Your task to perform on an android device: turn on translation in the chrome app Image 0: 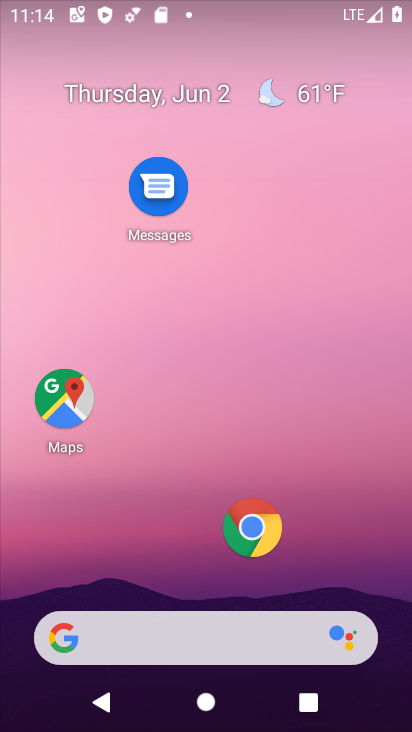
Step 0: drag from (217, 577) to (251, 52)
Your task to perform on an android device: turn on translation in the chrome app Image 1: 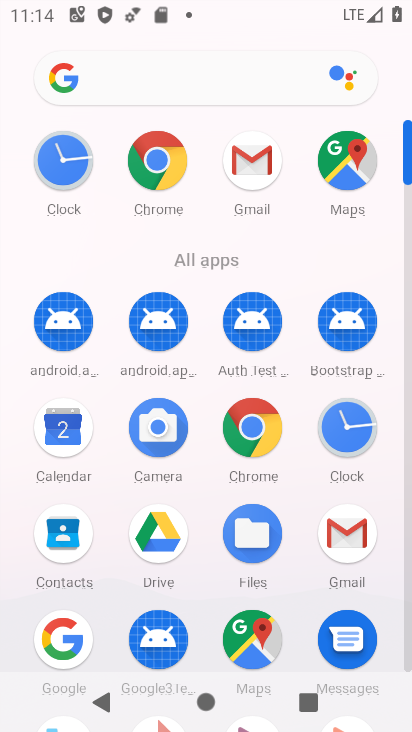
Step 1: click (246, 418)
Your task to perform on an android device: turn on translation in the chrome app Image 2: 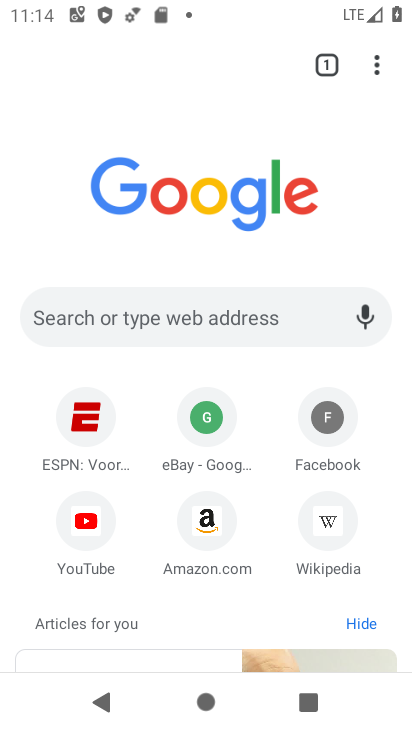
Step 2: click (374, 64)
Your task to perform on an android device: turn on translation in the chrome app Image 3: 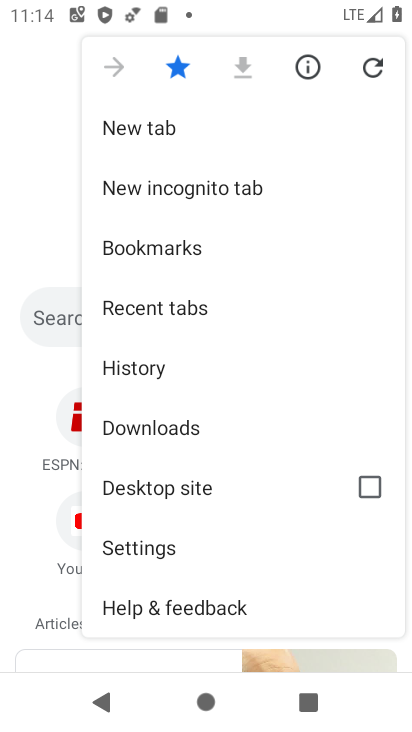
Step 3: click (180, 547)
Your task to perform on an android device: turn on translation in the chrome app Image 4: 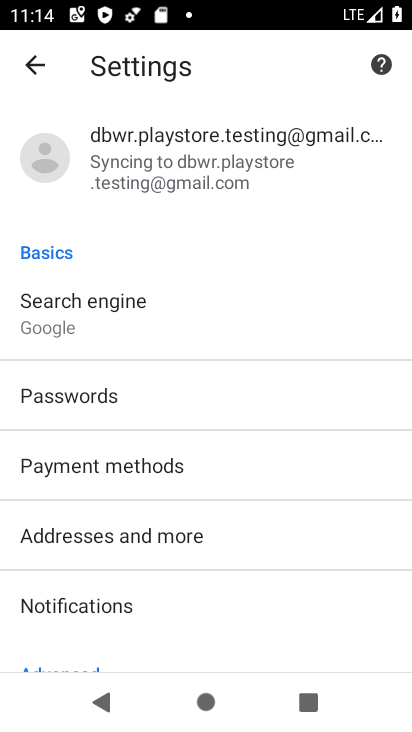
Step 4: drag from (244, 627) to (252, 66)
Your task to perform on an android device: turn on translation in the chrome app Image 5: 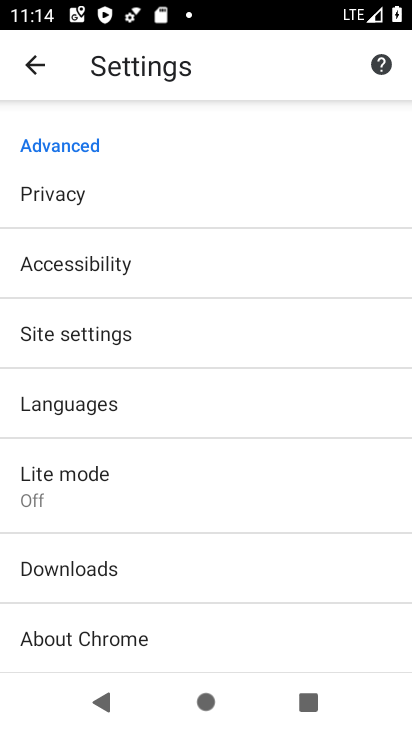
Step 5: click (156, 404)
Your task to perform on an android device: turn on translation in the chrome app Image 6: 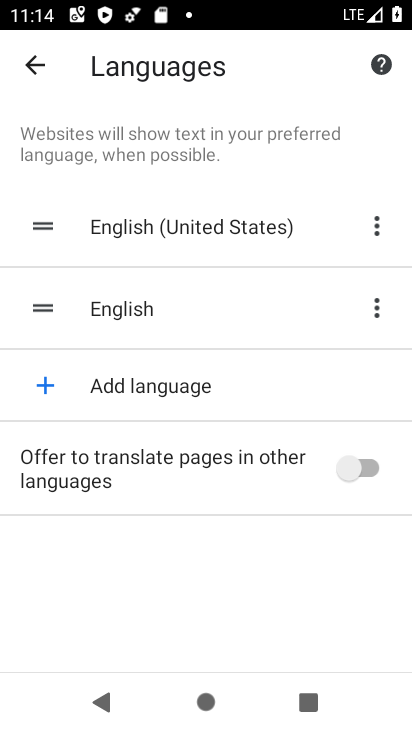
Step 6: click (359, 468)
Your task to perform on an android device: turn on translation in the chrome app Image 7: 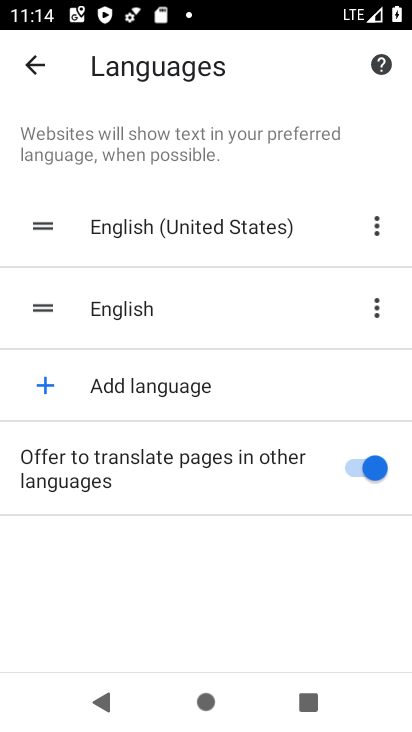
Step 7: task complete